Your task to perform on an android device: Play the last video I watched on Youtube Image 0: 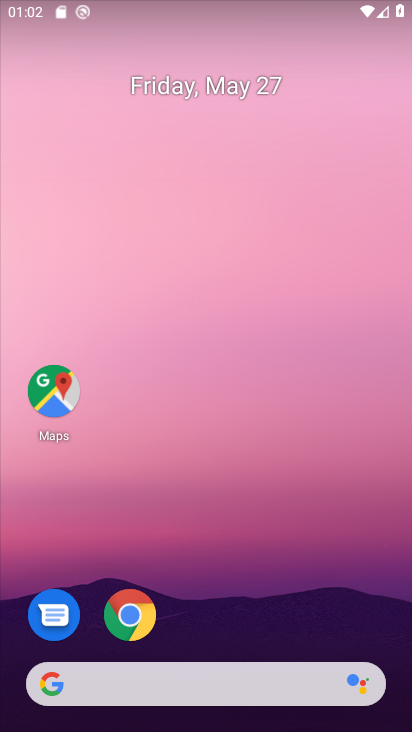
Step 0: drag from (360, 619) to (361, 248)
Your task to perform on an android device: Play the last video I watched on Youtube Image 1: 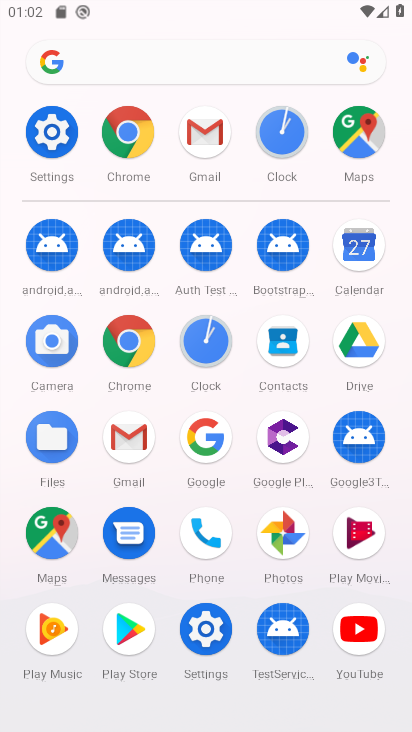
Step 1: click (360, 661)
Your task to perform on an android device: Play the last video I watched on Youtube Image 2: 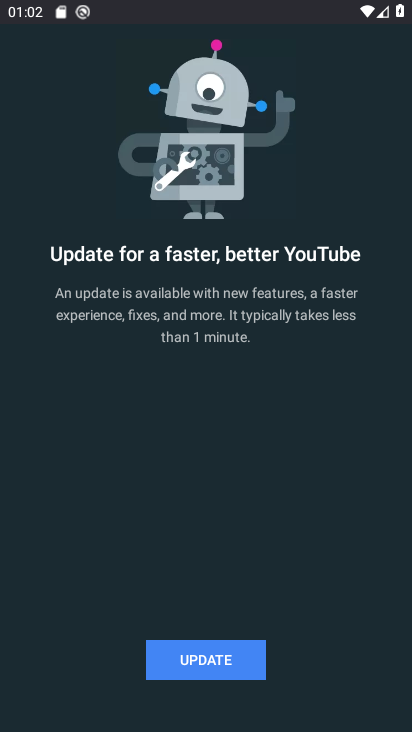
Step 2: click (240, 654)
Your task to perform on an android device: Play the last video I watched on Youtube Image 3: 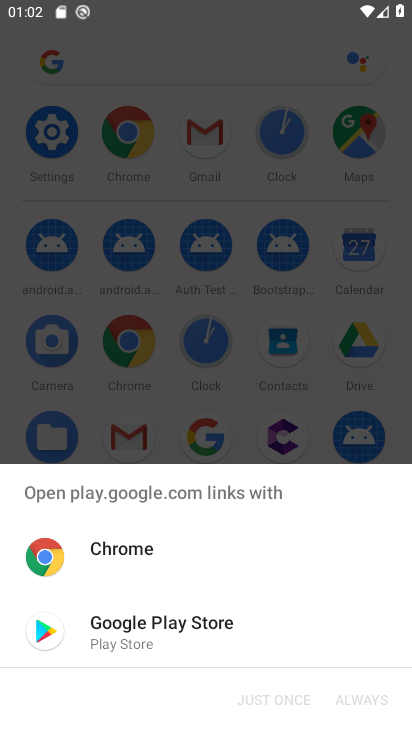
Step 3: click (202, 617)
Your task to perform on an android device: Play the last video I watched on Youtube Image 4: 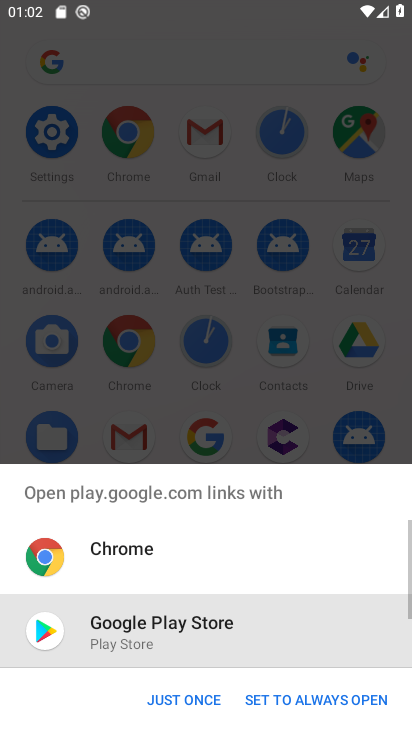
Step 4: click (205, 700)
Your task to perform on an android device: Play the last video I watched on Youtube Image 5: 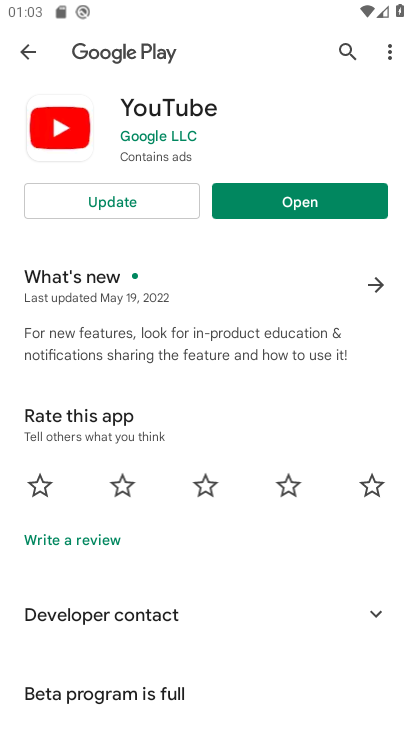
Step 5: click (132, 196)
Your task to perform on an android device: Play the last video I watched on Youtube Image 6: 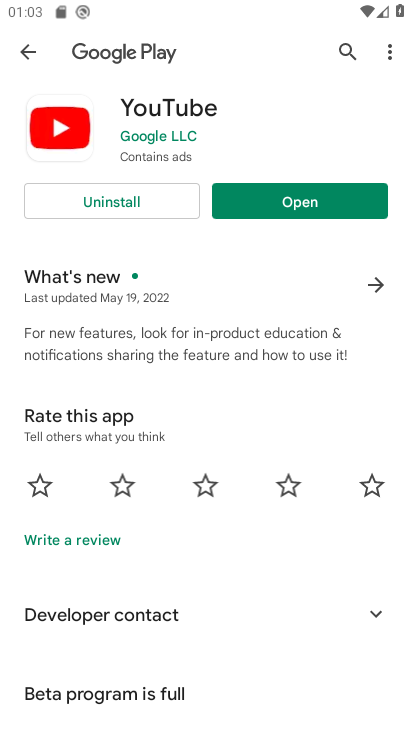
Step 6: click (305, 208)
Your task to perform on an android device: Play the last video I watched on Youtube Image 7: 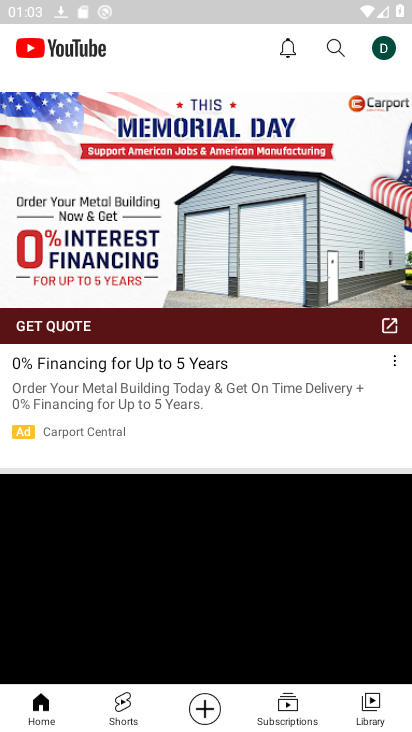
Step 7: click (377, 707)
Your task to perform on an android device: Play the last video I watched on Youtube Image 8: 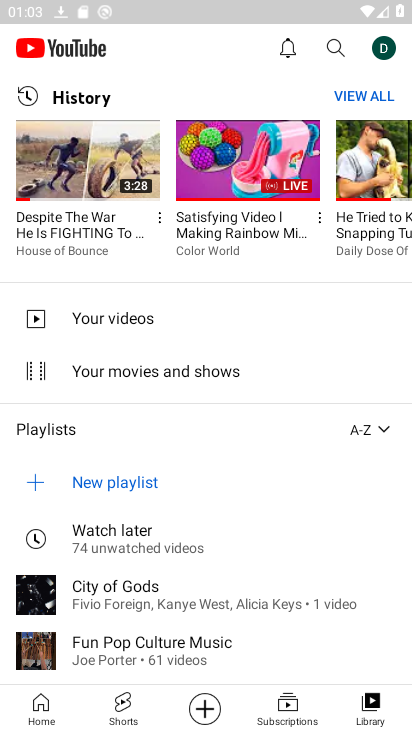
Step 8: click (70, 168)
Your task to perform on an android device: Play the last video I watched on Youtube Image 9: 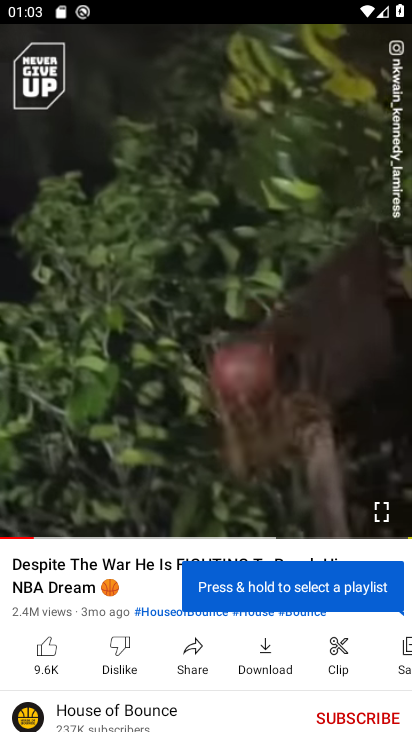
Step 9: task complete